Your task to perform on an android device: change the clock display to show seconds Image 0: 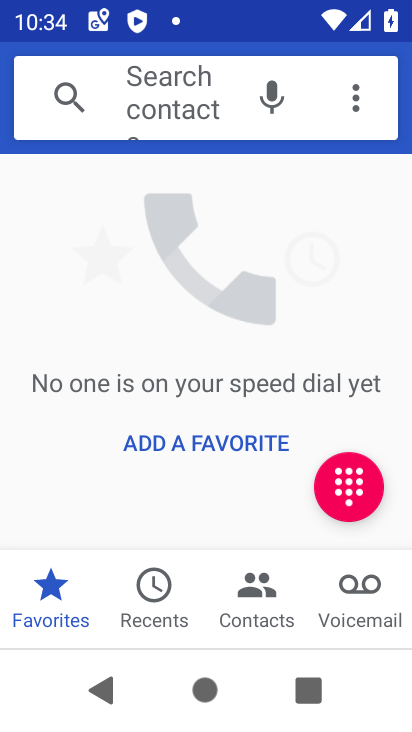
Step 0: press home button
Your task to perform on an android device: change the clock display to show seconds Image 1: 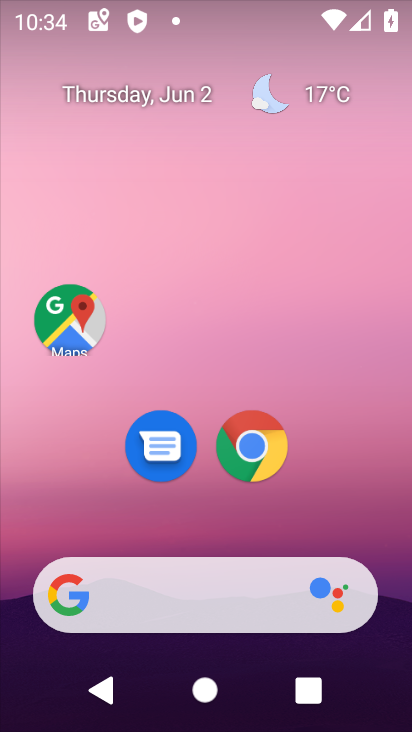
Step 1: drag from (341, 528) to (271, 164)
Your task to perform on an android device: change the clock display to show seconds Image 2: 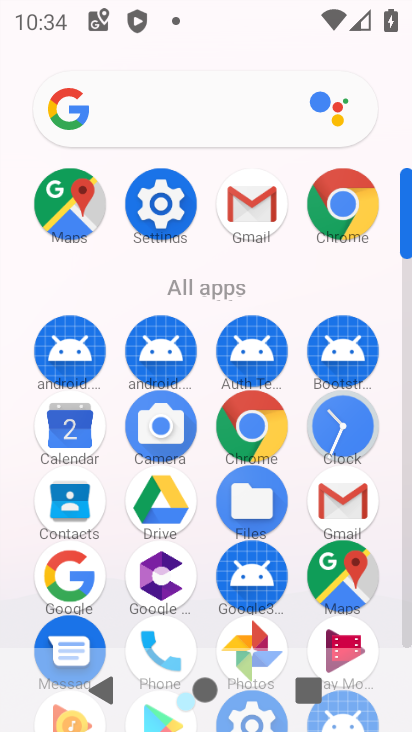
Step 2: click (352, 442)
Your task to perform on an android device: change the clock display to show seconds Image 3: 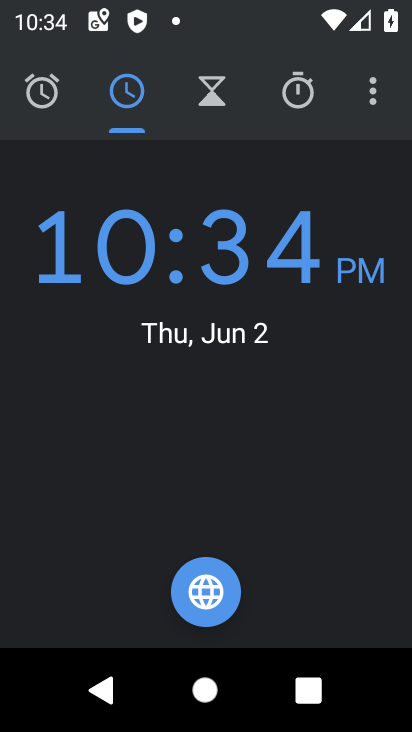
Step 3: click (357, 86)
Your task to perform on an android device: change the clock display to show seconds Image 4: 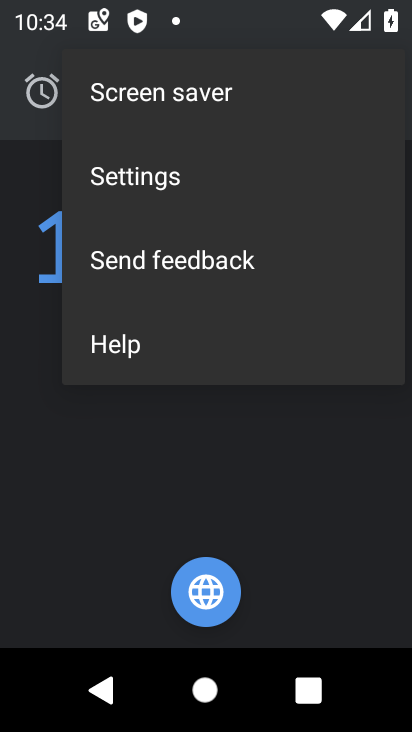
Step 4: click (166, 181)
Your task to perform on an android device: change the clock display to show seconds Image 5: 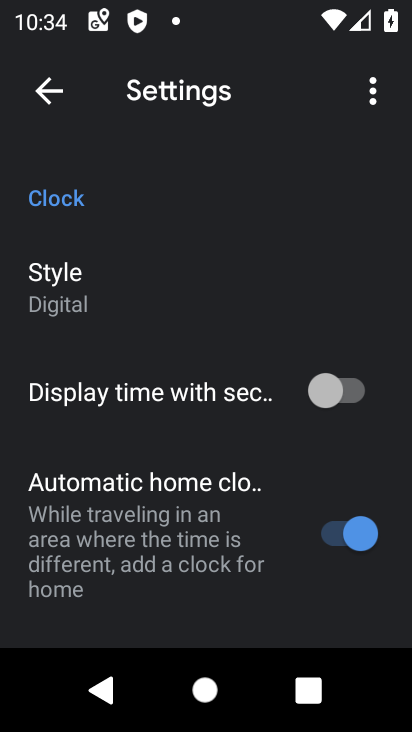
Step 5: click (361, 399)
Your task to perform on an android device: change the clock display to show seconds Image 6: 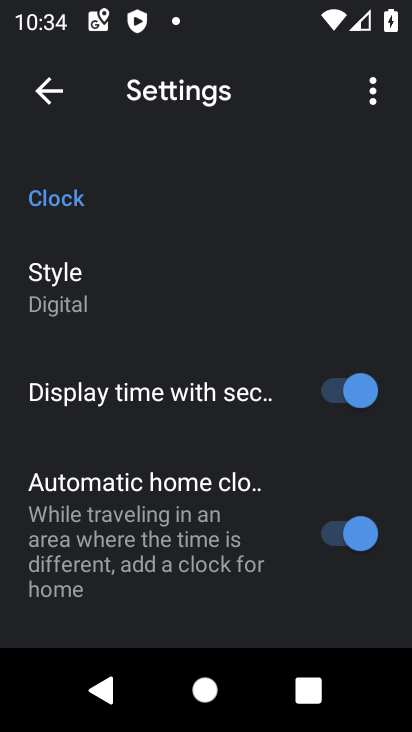
Step 6: task complete